Your task to perform on an android device: Open Google Maps and go to "Timeline" Image 0: 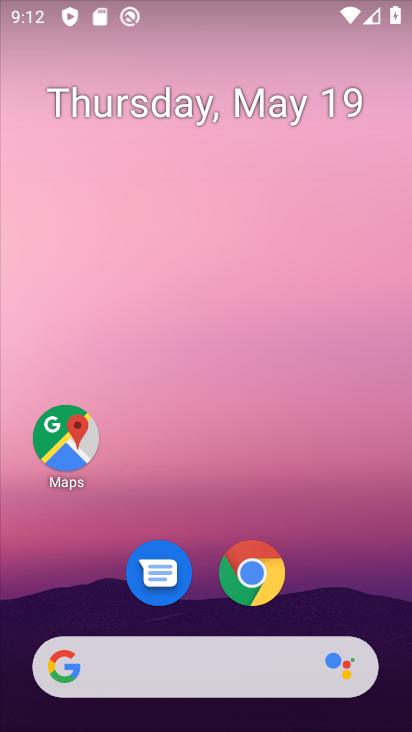
Step 0: click (64, 429)
Your task to perform on an android device: Open Google Maps and go to "Timeline" Image 1: 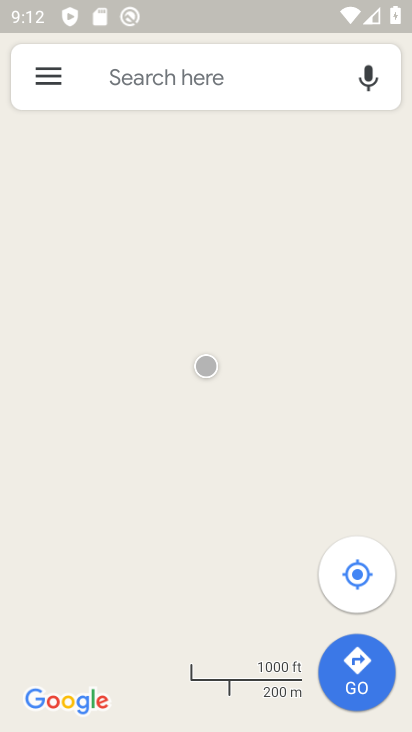
Step 1: click (53, 81)
Your task to perform on an android device: Open Google Maps and go to "Timeline" Image 2: 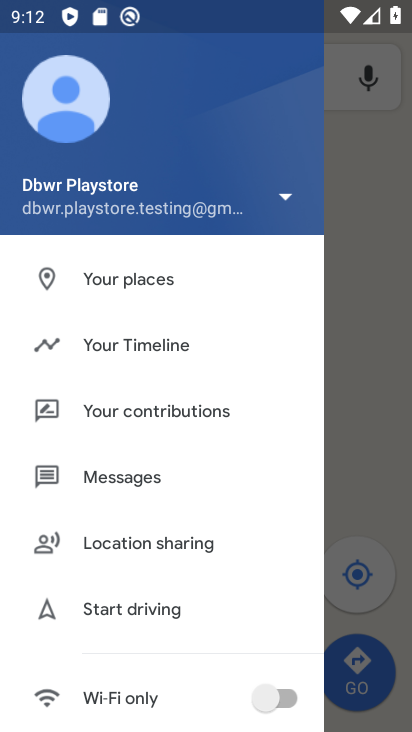
Step 2: click (146, 334)
Your task to perform on an android device: Open Google Maps and go to "Timeline" Image 3: 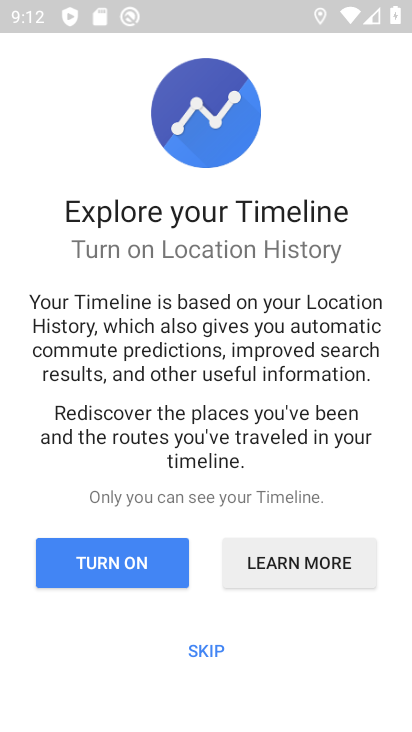
Step 3: click (223, 641)
Your task to perform on an android device: Open Google Maps and go to "Timeline" Image 4: 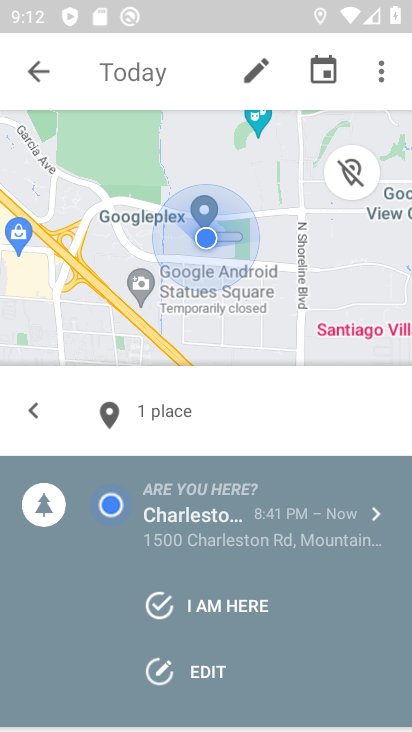
Step 4: click (378, 74)
Your task to perform on an android device: Open Google Maps and go to "Timeline" Image 5: 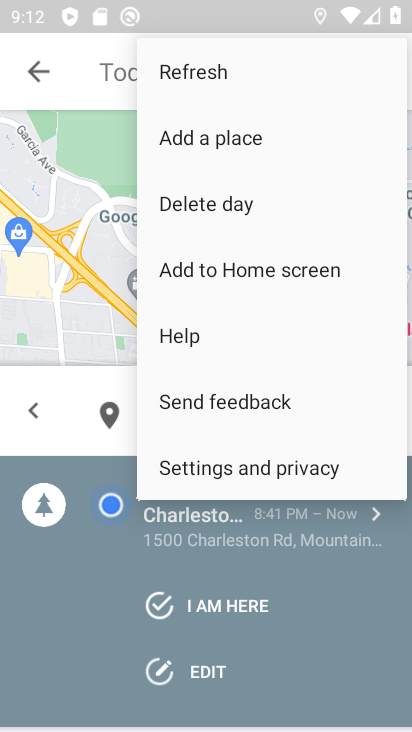
Step 5: click (25, 156)
Your task to perform on an android device: Open Google Maps and go to "Timeline" Image 6: 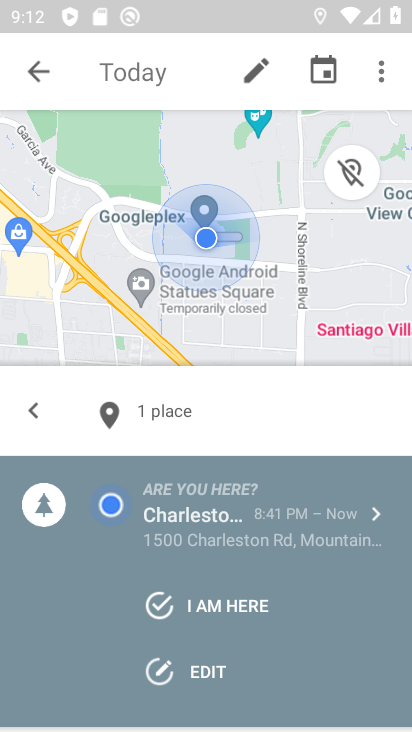
Step 6: task complete